Your task to perform on an android device: toggle airplane mode Image 0: 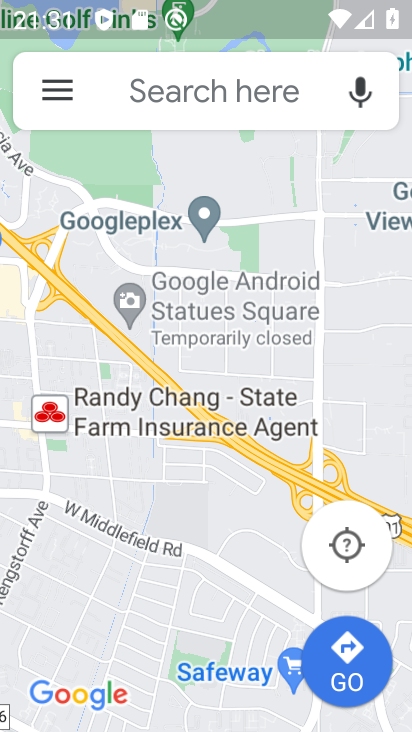
Step 0: press home button
Your task to perform on an android device: toggle airplane mode Image 1: 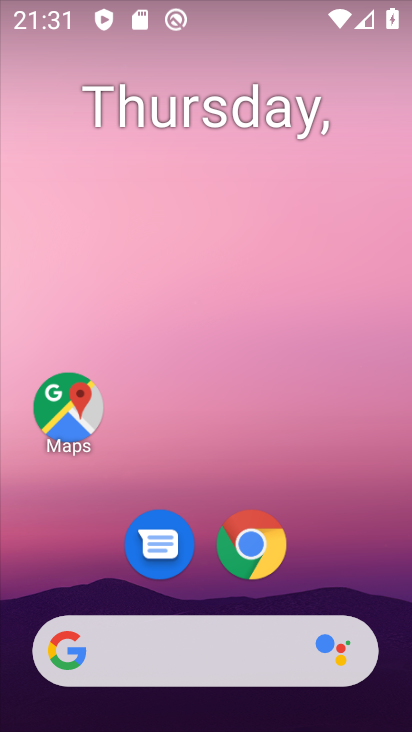
Step 1: drag from (264, 684) to (250, 76)
Your task to perform on an android device: toggle airplane mode Image 2: 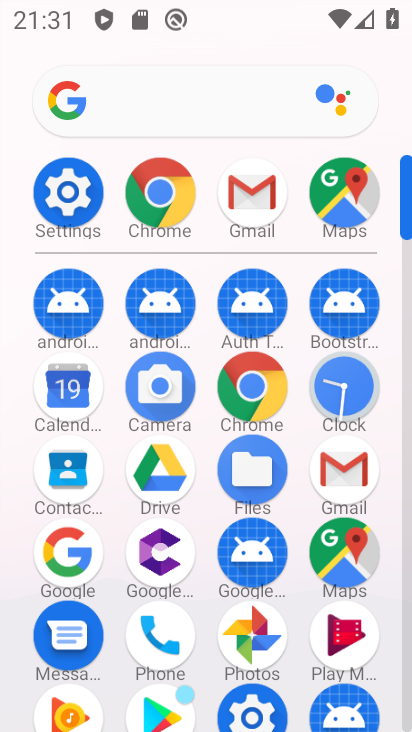
Step 2: click (56, 200)
Your task to perform on an android device: toggle airplane mode Image 3: 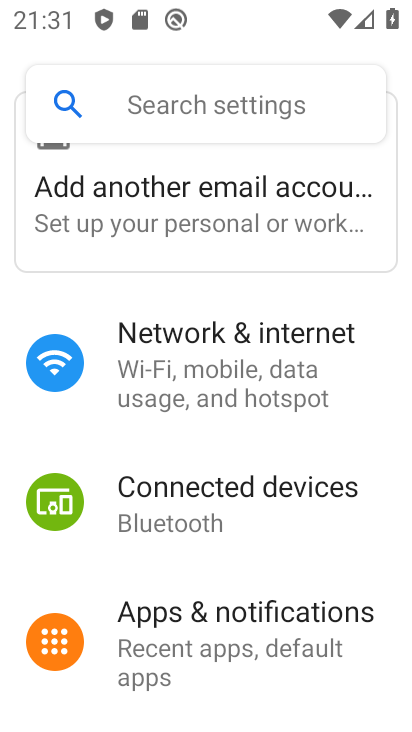
Step 3: click (290, 372)
Your task to perform on an android device: toggle airplane mode Image 4: 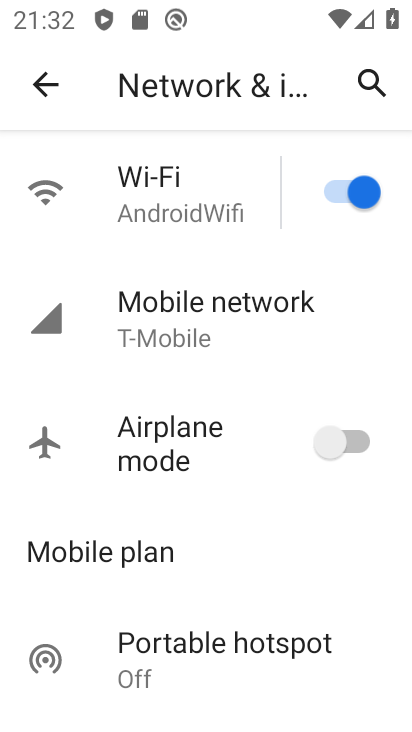
Step 4: click (359, 438)
Your task to perform on an android device: toggle airplane mode Image 5: 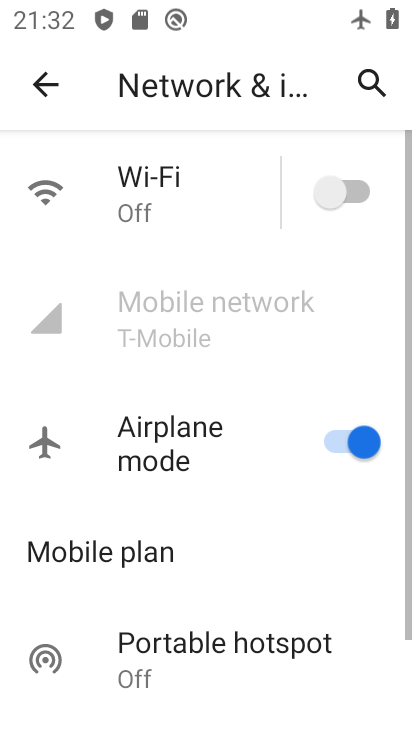
Step 5: task complete